Your task to perform on an android device: Open the calendar app, open the side menu, and click the "Day" option Image 0: 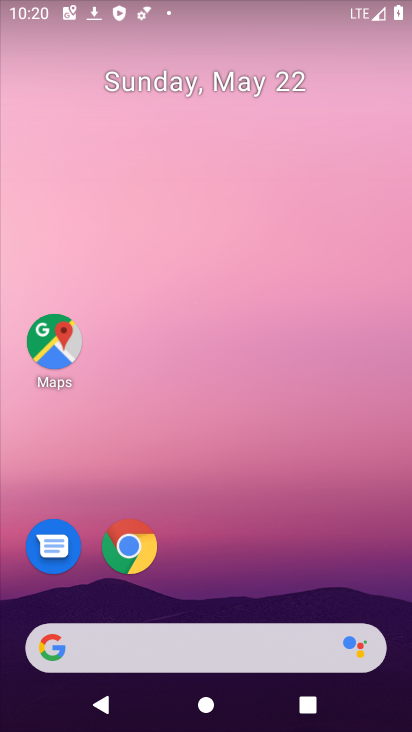
Step 0: drag from (186, 57) to (269, 156)
Your task to perform on an android device: Open the calendar app, open the side menu, and click the "Day" option Image 1: 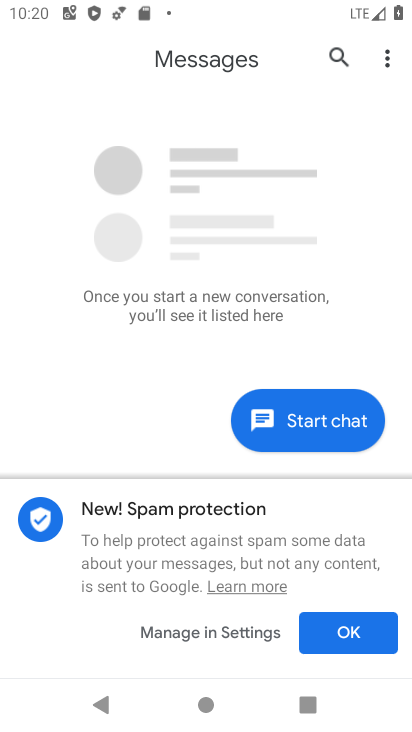
Step 1: drag from (153, 433) to (239, 131)
Your task to perform on an android device: Open the calendar app, open the side menu, and click the "Day" option Image 2: 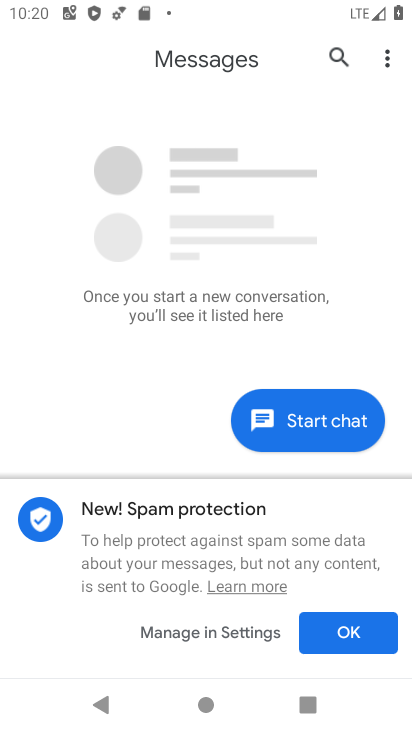
Step 2: press home button
Your task to perform on an android device: Open the calendar app, open the side menu, and click the "Day" option Image 3: 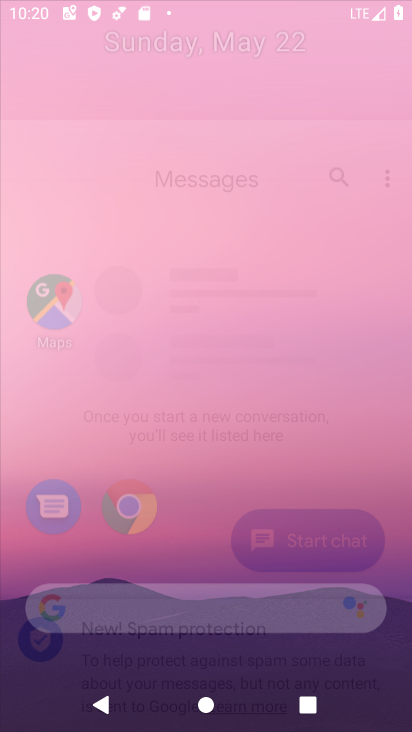
Step 3: drag from (163, 583) to (218, 92)
Your task to perform on an android device: Open the calendar app, open the side menu, and click the "Day" option Image 4: 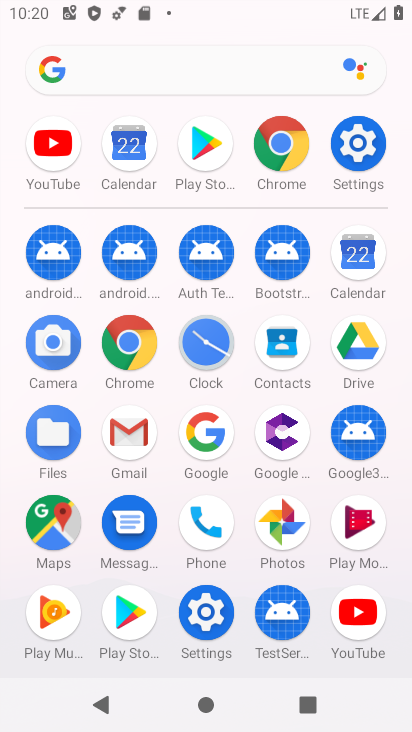
Step 4: click (126, 436)
Your task to perform on an android device: Open the calendar app, open the side menu, and click the "Day" option Image 5: 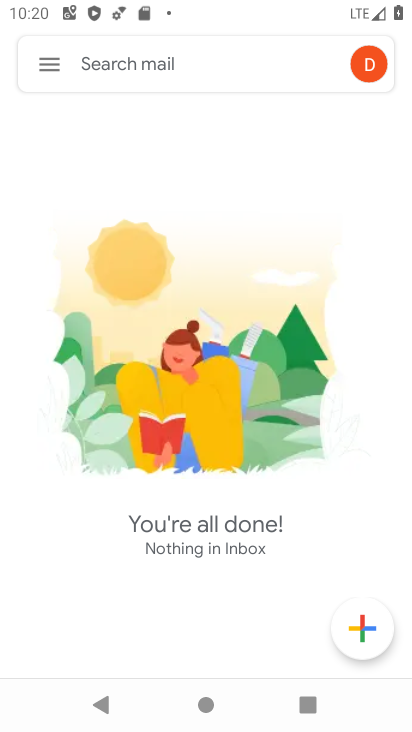
Step 5: press home button
Your task to perform on an android device: Open the calendar app, open the side menu, and click the "Day" option Image 6: 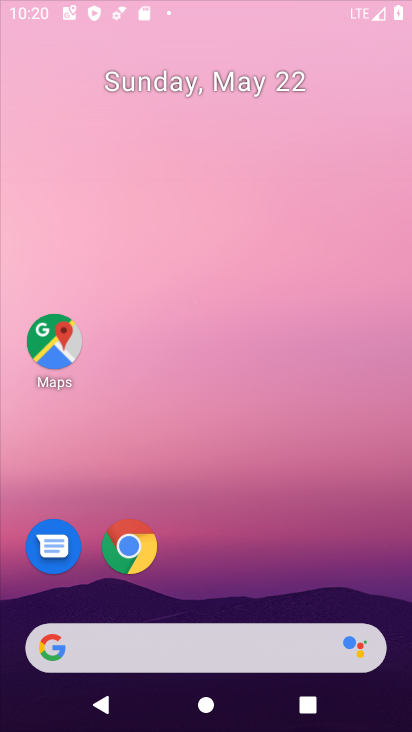
Step 6: drag from (191, 550) to (240, 105)
Your task to perform on an android device: Open the calendar app, open the side menu, and click the "Day" option Image 7: 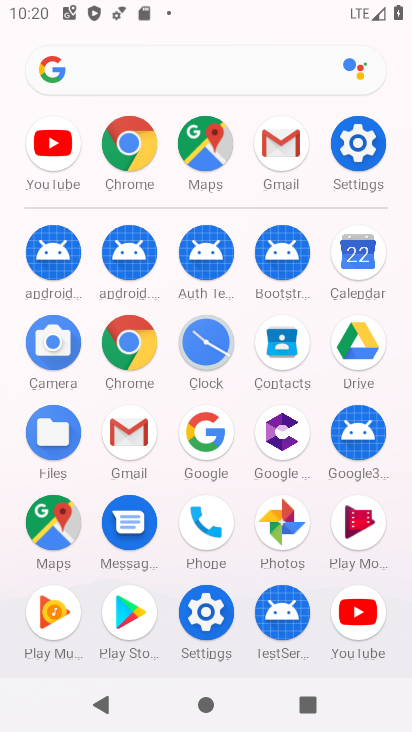
Step 7: click (347, 256)
Your task to perform on an android device: Open the calendar app, open the side menu, and click the "Day" option Image 8: 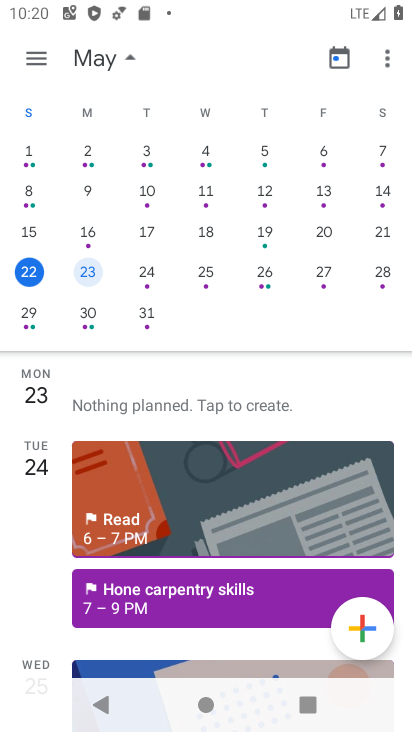
Step 8: click (47, 63)
Your task to perform on an android device: Open the calendar app, open the side menu, and click the "Day" option Image 9: 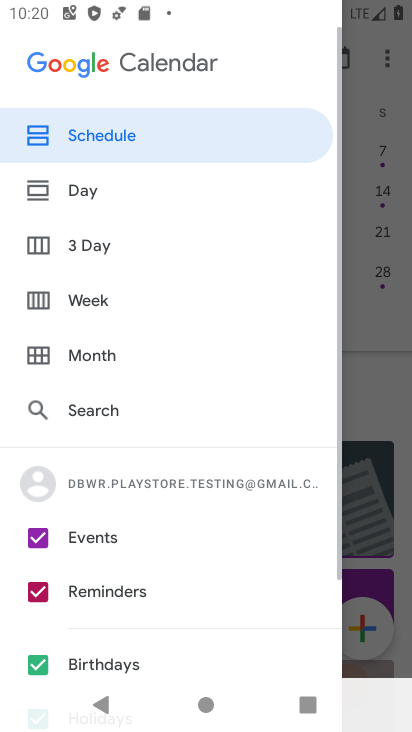
Step 9: click (100, 193)
Your task to perform on an android device: Open the calendar app, open the side menu, and click the "Day" option Image 10: 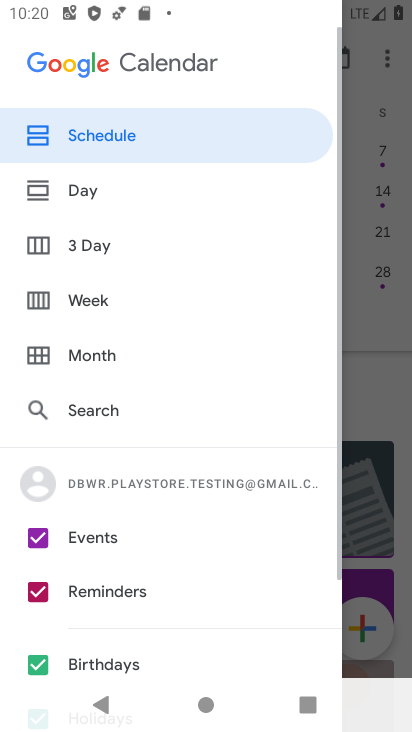
Step 10: click (51, 196)
Your task to perform on an android device: Open the calendar app, open the side menu, and click the "Day" option Image 11: 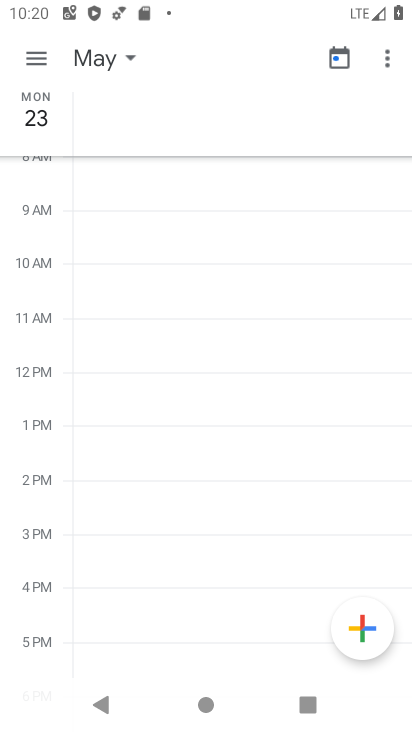
Step 11: task complete